Your task to perform on an android device: Go to location settings Image 0: 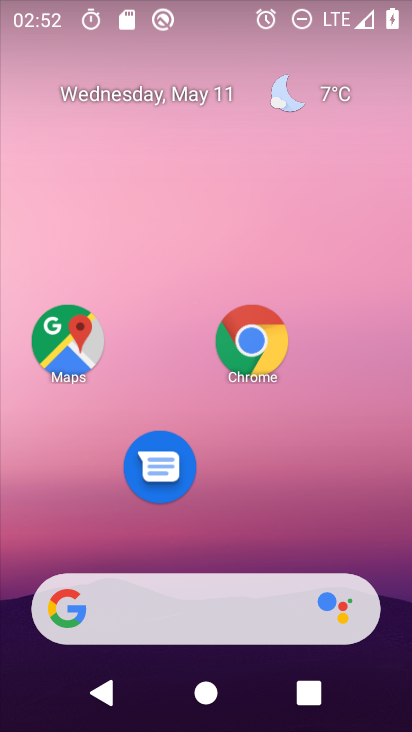
Step 0: drag from (176, 622) to (262, 148)
Your task to perform on an android device: Go to location settings Image 1: 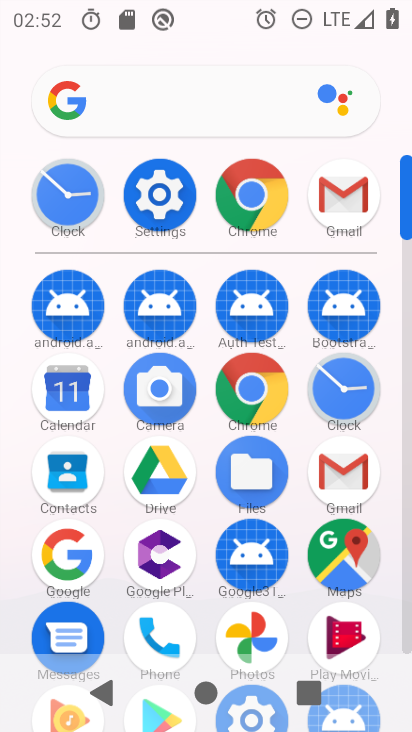
Step 1: click (163, 199)
Your task to perform on an android device: Go to location settings Image 2: 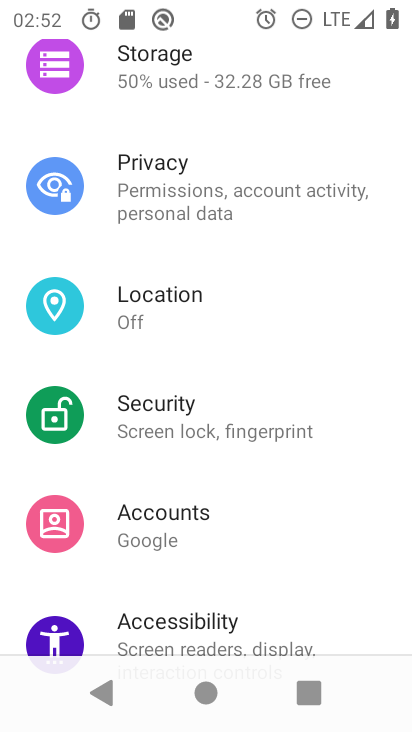
Step 2: click (143, 309)
Your task to perform on an android device: Go to location settings Image 3: 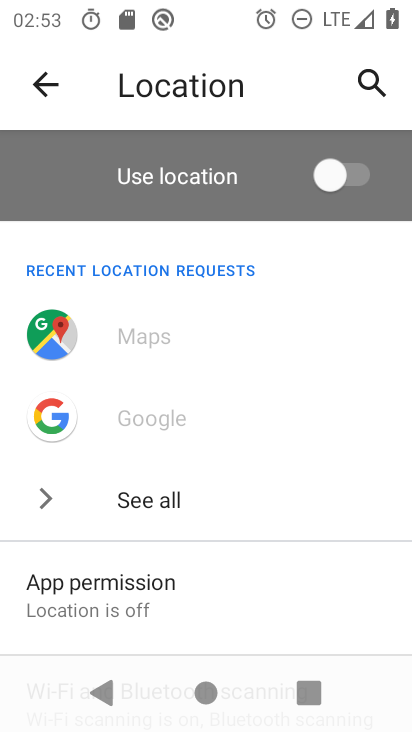
Step 3: task complete